Your task to perform on an android device: Play the last video I watched on Youtube Image 0: 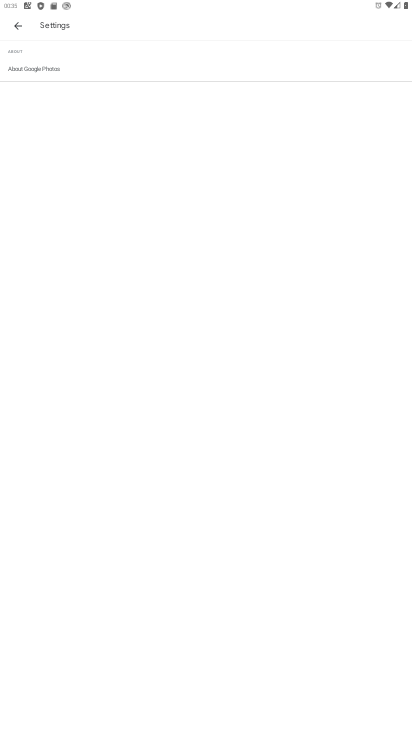
Step 0: press home button
Your task to perform on an android device: Play the last video I watched on Youtube Image 1: 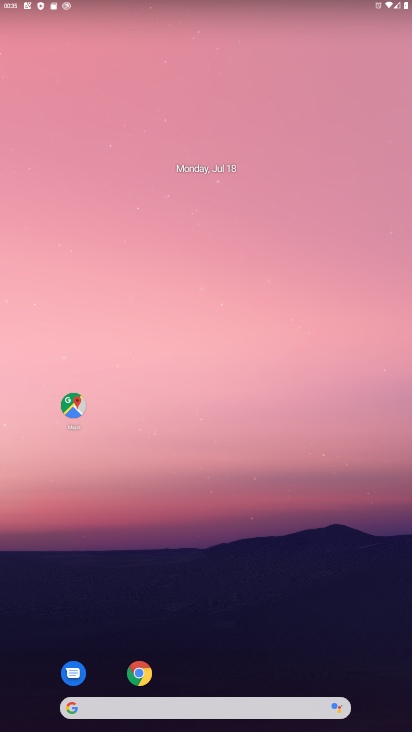
Step 1: drag from (237, 660) to (216, 227)
Your task to perform on an android device: Play the last video I watched on Youtube Image 2: 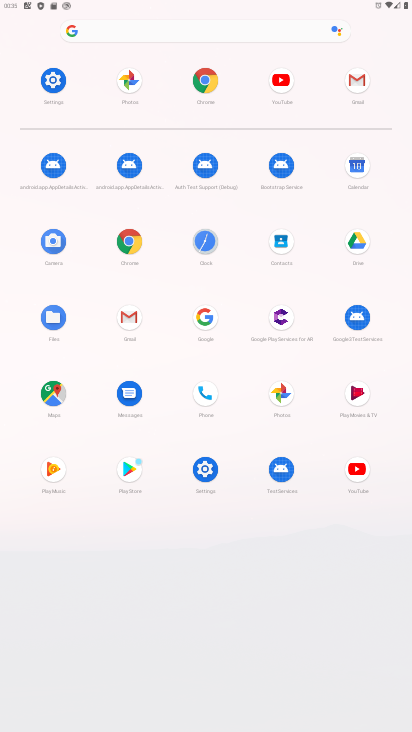
Step 2: click (283, 99)
Your task to perform on an android device: Play the last video I watched on Youtube Image 3: 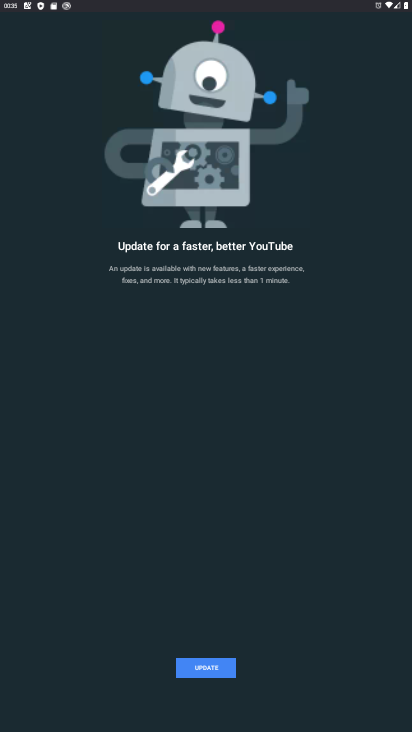
Step 3: click (149, 663)
Your task to perform on an android device: Play the last video I watched on Youtube Image 4: 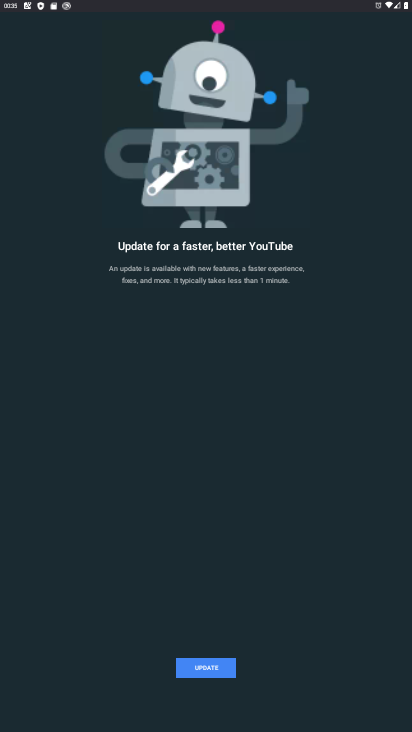
Step 4: click (192, 663)
Your task to perform on an android device: Play the last video I watched on Youtube Image 5: 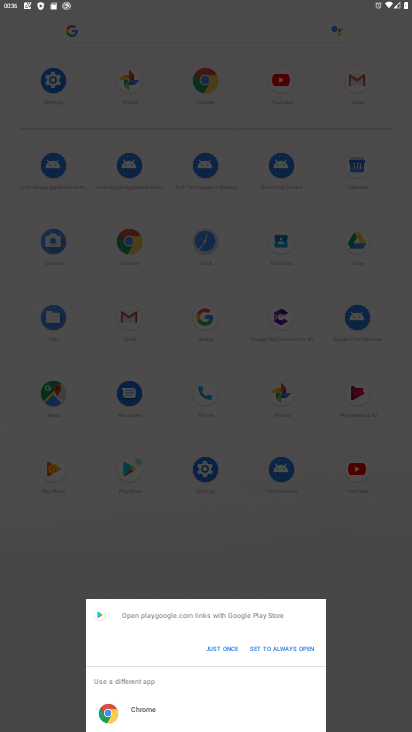
Step 5: click (230, 644)
Your task to perform on an android device: Play the last video I watched on Youtube Image 6: 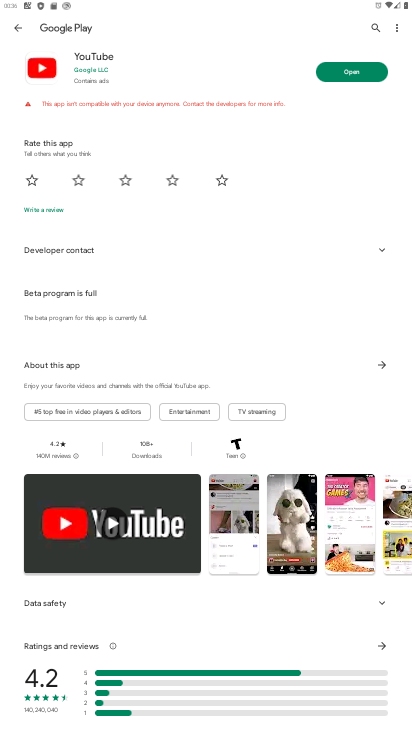
Step 6: click (357, 81)
Your task to perform on an android device: Play the last video I watched on Youtube Image 7: 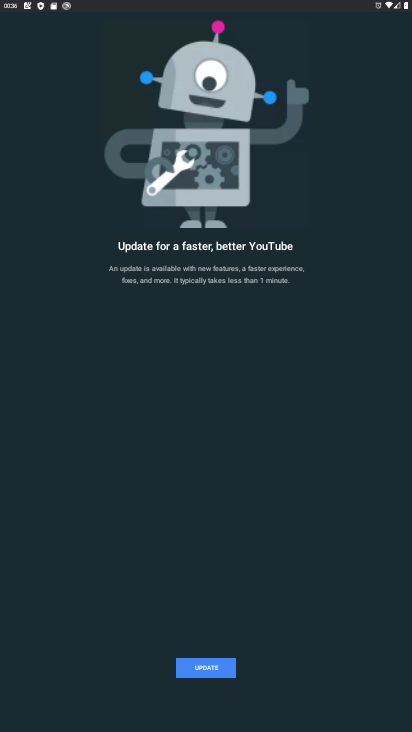
Step 7: task complete